Your task to perform on an android device: Open the phone app and click the voicemail tab. Image 0: 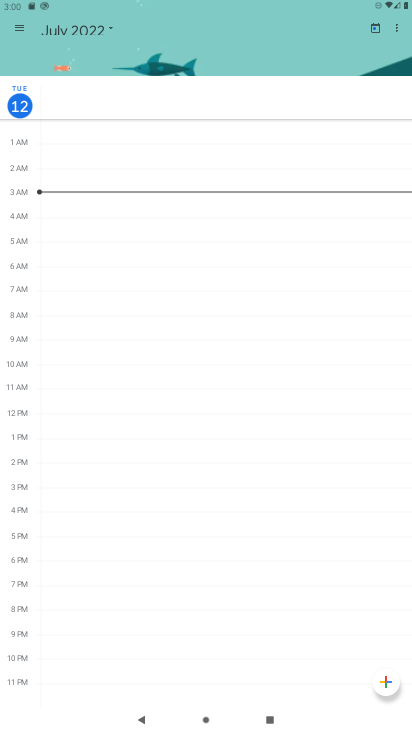
Step 0: press home button
Your task to perform on an android device: Open the phone app and click the voicemail tab. Image 1: 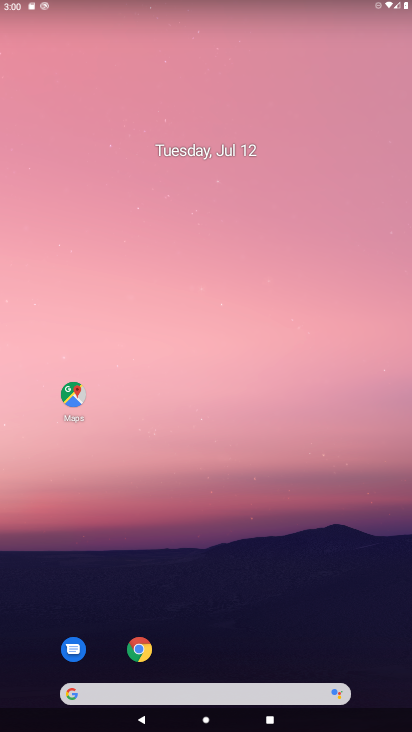
Step 1: drag from (263, 660) to (191, 0)
Your task to perform on an android device: Open the phone app and click the voicemail tab. Image 2: 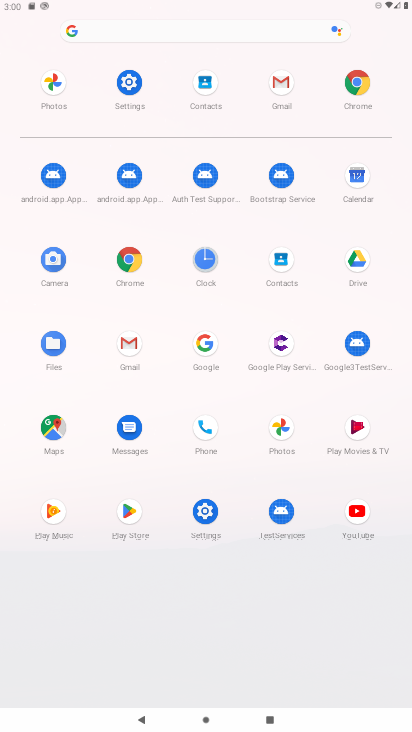
Step 2: click (205, 443)
Your task to perform on an android device: Open the phone app and click the voicemail tab. Image 3: 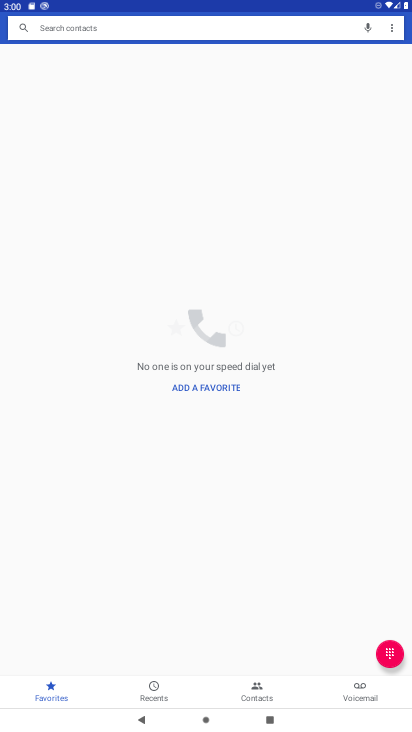
Step 3: click (336, 687)
Your task to perform on an android device: Open the phone app and click the voicemail tab. Image 4: 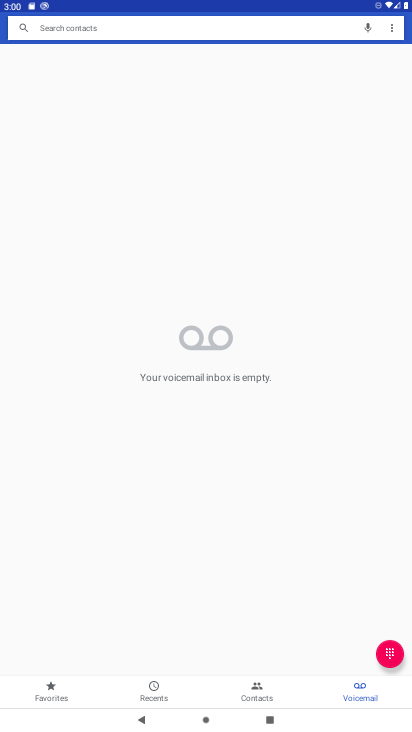
Step 4: task complete